Your task to perform on an android device: What's on my calendar today? Image 0: 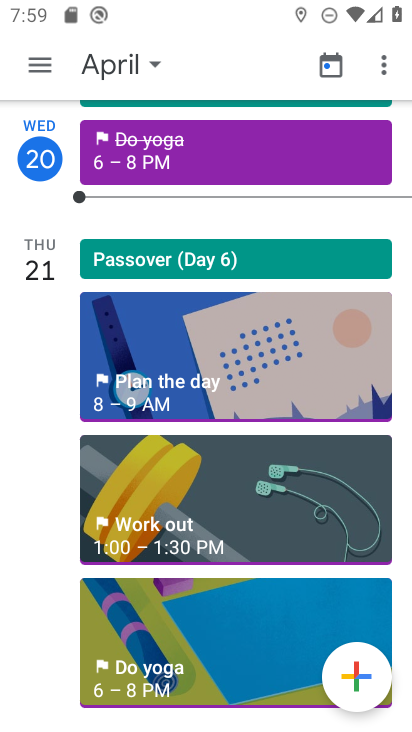
Step 0: click (48, 48)
Your task to perform on an android device: What's on my calendar today? Image 1: 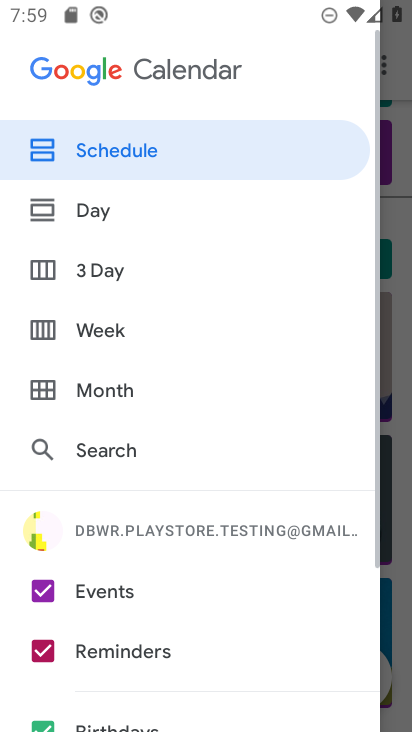
Step 1: click (98, 215)
Your task to perform on an android device: What's on my calendar today? Image 2: 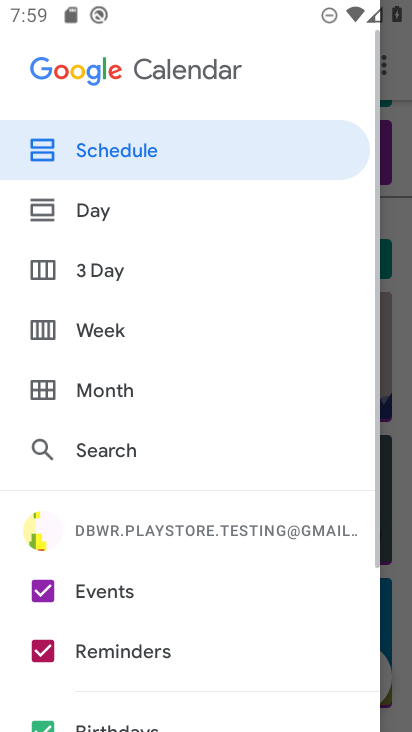
Step 2: click (98, 213)
Your task to perform on an android device: What's on my calendar today? Image 3: 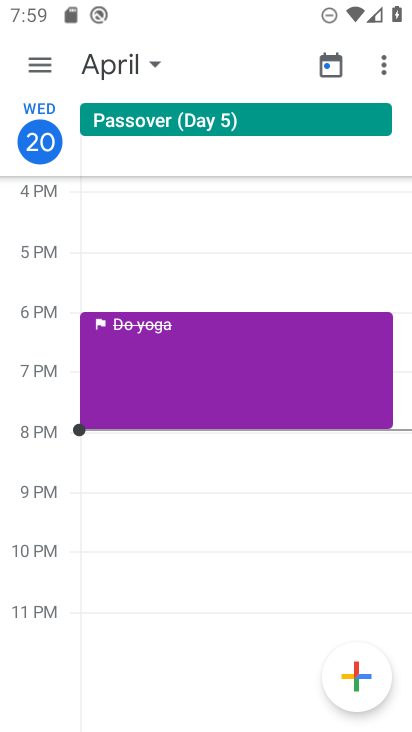
Step 3: task complete